Your task to perform on an android device: set the timer Image 0: 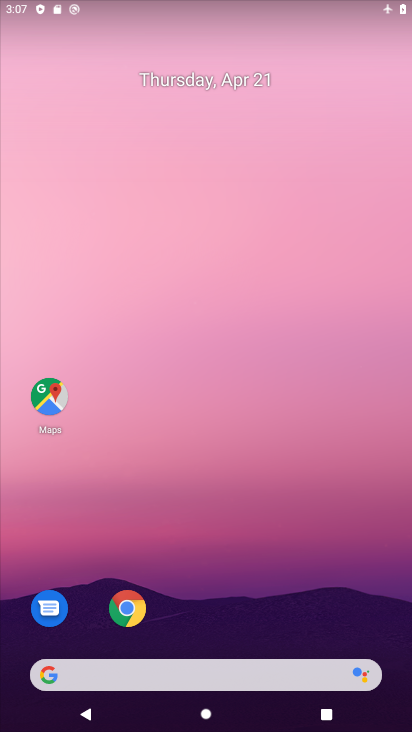
Step 0: drag from (306, 620) to (219, 244)
Your task to perform on an android device: set the timer Image 1: 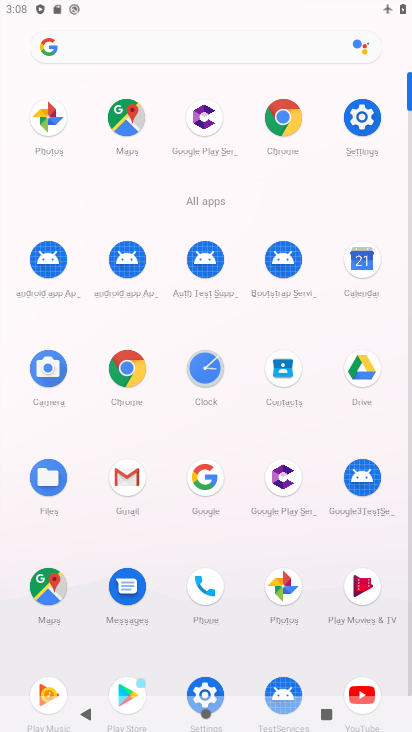
Step 1: click (210, 374)
Your task to perform on an android device: set the timer Image 2: 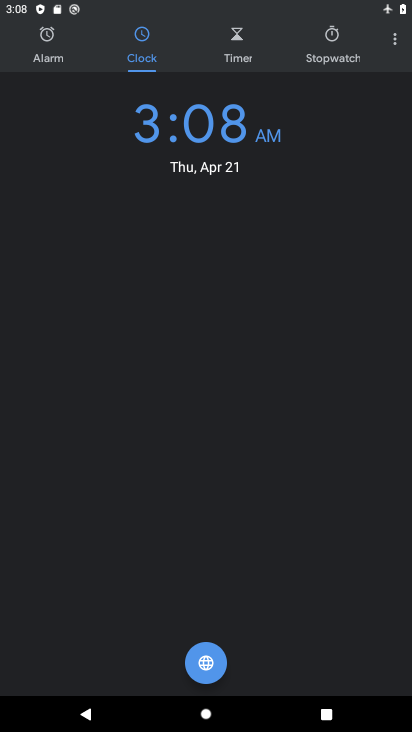
Step 2: click (249, 45)
Your task to perform on an android device: set the timer Image 3: 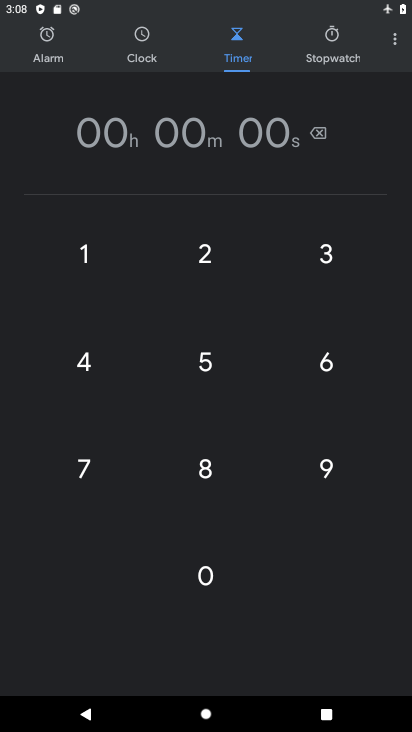
Step 3: type "10000"
Your task to perform on an android device: set the timer Image 4: 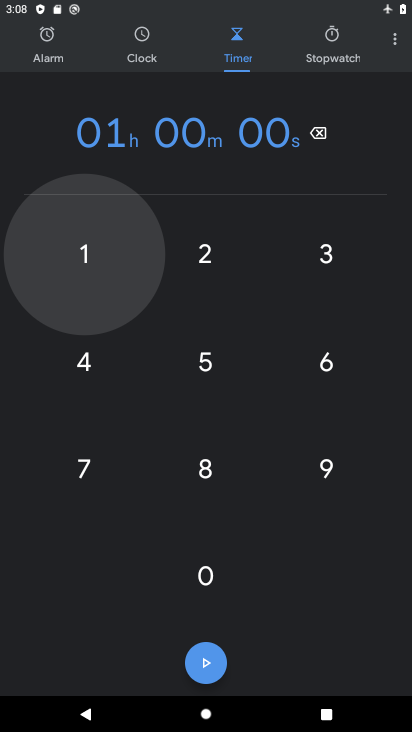
Step 4: click (212, 660)
Your task to perform on an android device: set the timer Image 5: 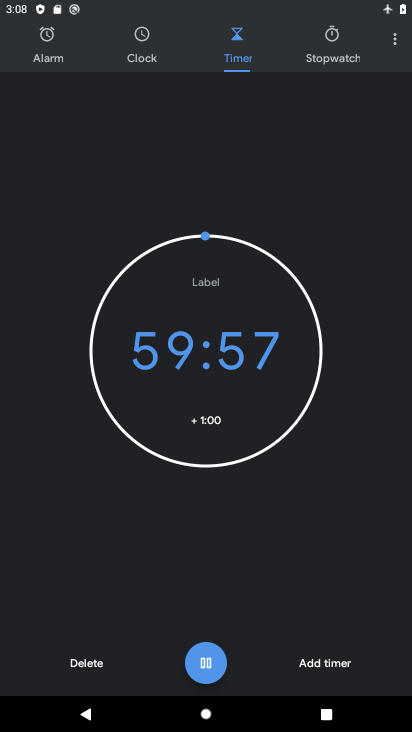
Step 5: task complete